Your task to perform on an android device: find snoozed emails in the gmail app Image 0: 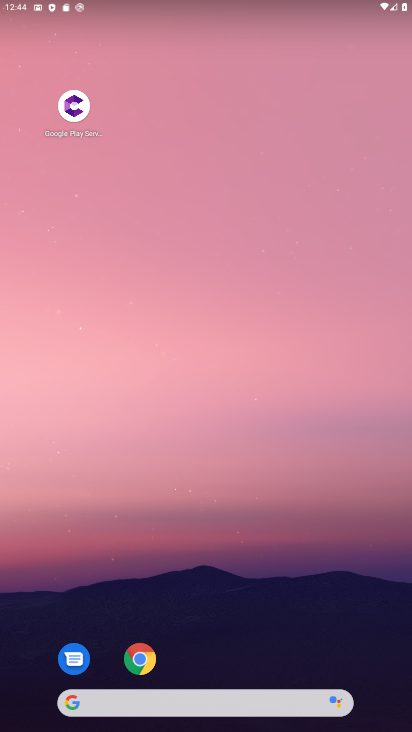
Step 0: drag from (181, 497) to (209, 99)
Your task to perform on an android device: find snoozed emails in the gmail app Image 1: 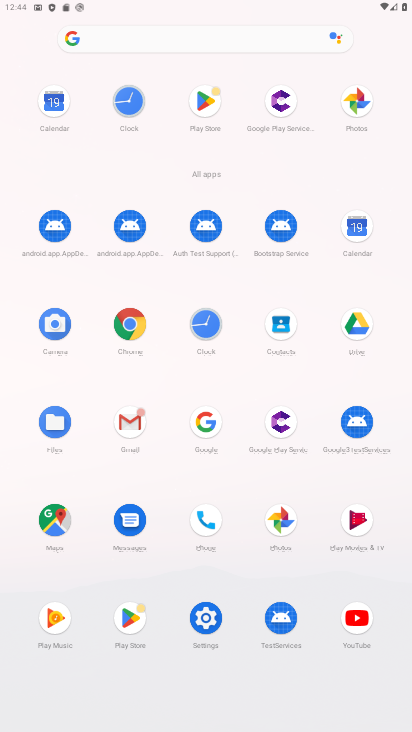
Step 1: click (137, 430)
Your task to perform on an android device: find snoozed emails in the gmail app Image 2: 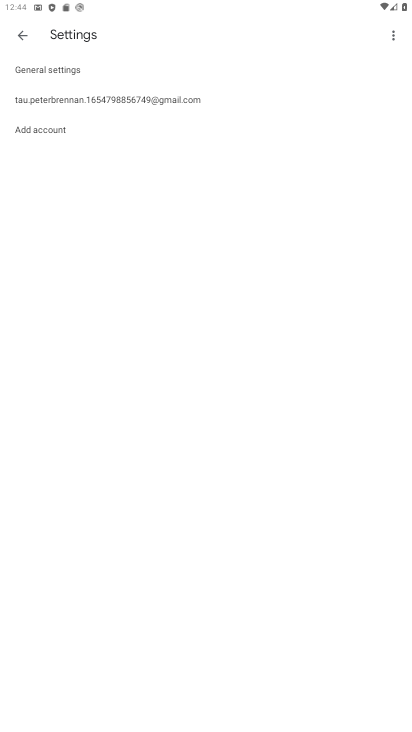
Step 2: click (25, 36)
Your task to perform on an android device: find snoozed emails in the gmail app Image 3: 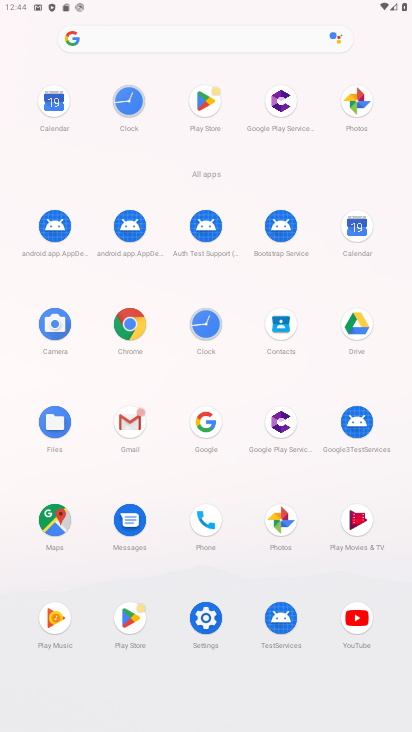
Step 3: click (133, 428)
Your task to perform on an android device: find snoozed emails in the gmail app Image 4: 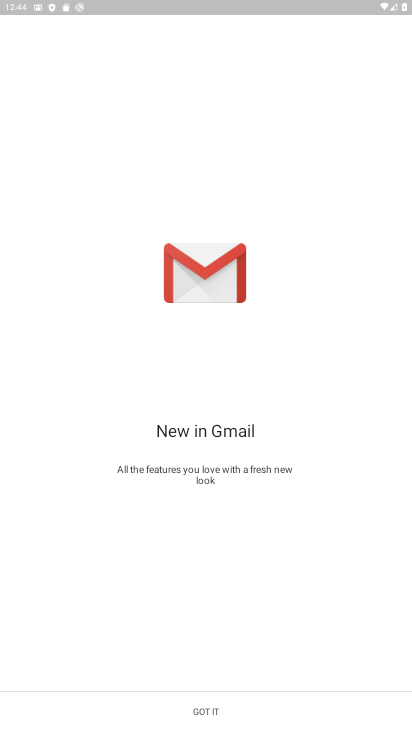
Step 4: click (199, 716)
Your task to perform on an android device: find snoozed emails in the gmail app Image 5: 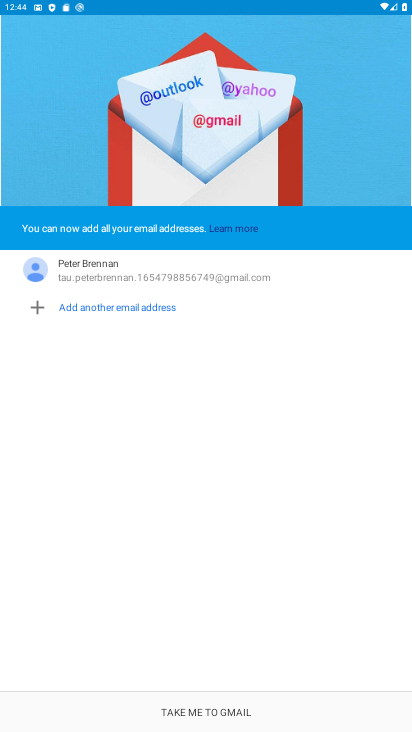
Step 5: click (199, 709)
Your task to perform on an android device: find snoozed emails in the gmail app Image 6: 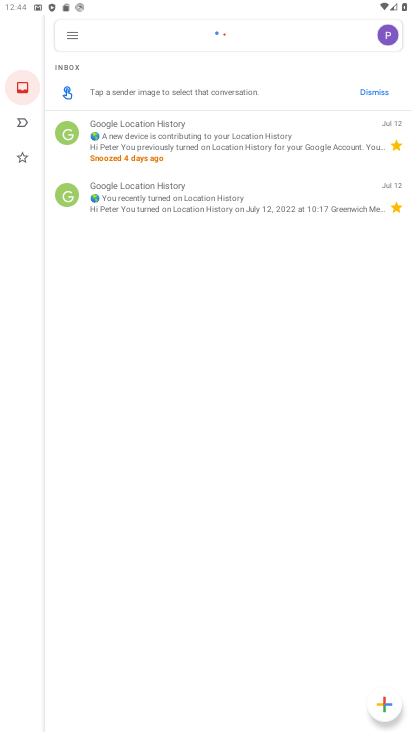
Step 6: click (68, 43)
Your task to perform on an android device: find snoozed emails in the gmail app Image 7: 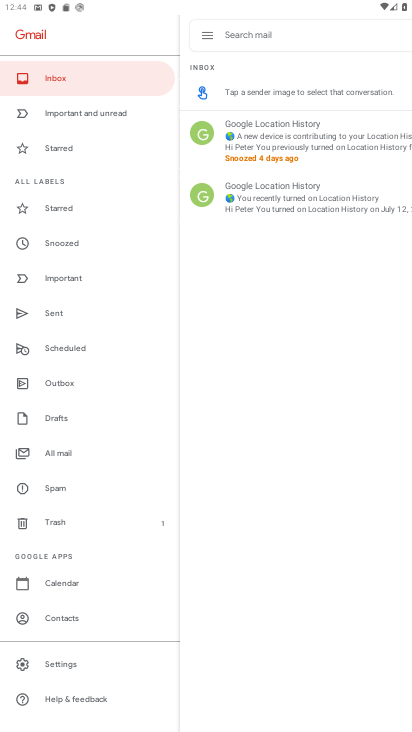
Step 7: click (69, 250)
Your task to perform on an android device: find snoozed emails in the gmail app Image 8: 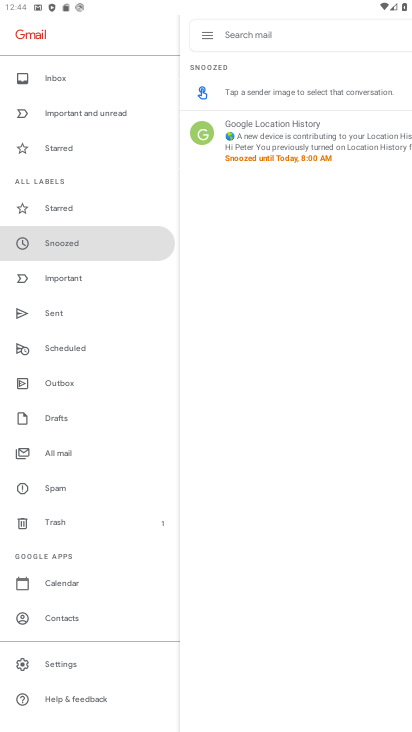
Step 8: task complete